Your task to perform on an android device: see tabs open on other devices in the chrome app Image 0: 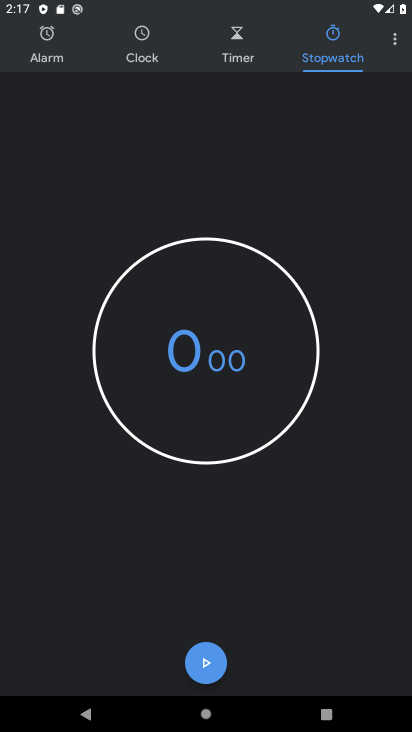
Step 0: press home button
Your task to perform on an android device: see tabs open on other devices in the chrome app Image 1: 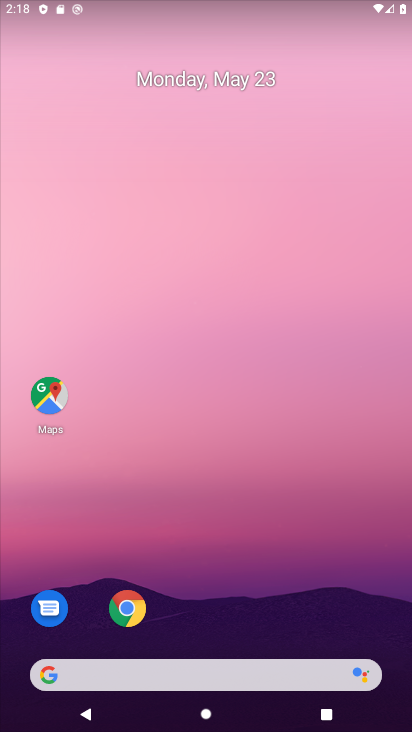
Step 1: drag from (201, 636) to (211, 333)
Your task to perform on an android device: see tabs open on other devices in the chrome app Image 2: 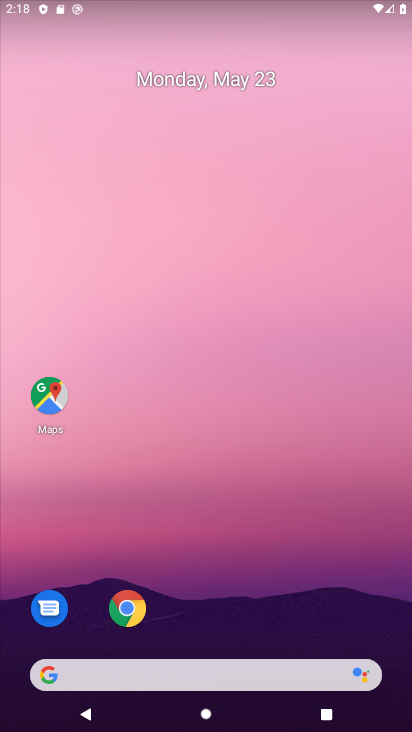
Step 2: click (126, 607)
Your task to perform on an android device: see tabs open on other devices in the chrome app Image 3: 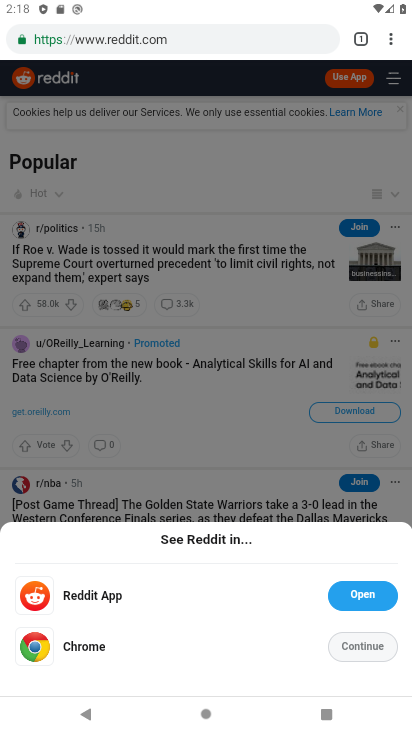
Step 3: click (387, 38)
Your task to perform on an android device: see tabs open on other devices in the chrome app Image 4: 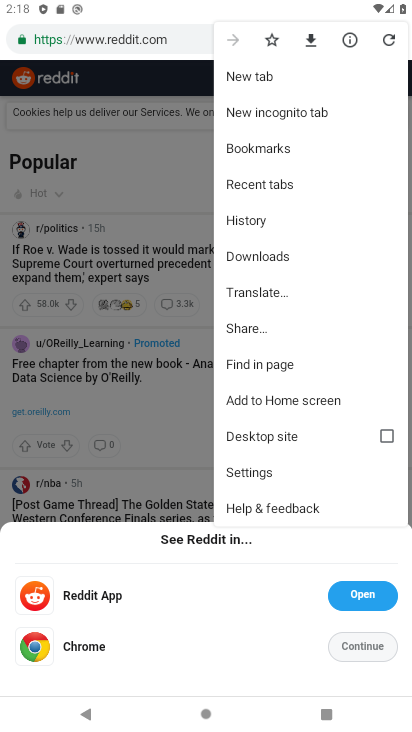
Step 4: click (261, 222)
Your task to perform on an android device: see tabs open on other devices in the chrome app Image 5: 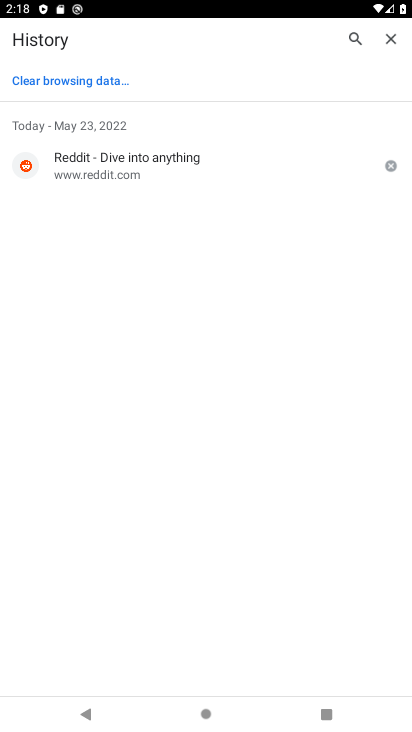
Step 5: task complete